Your task to perform on an android device: move an email to a new category in the gmail app Image 0: 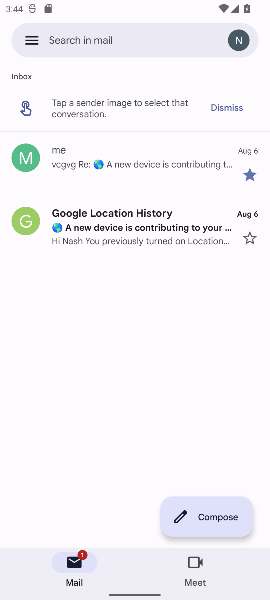
Step 0: press home button
Your task to perform on an android device: move an email to a new category in the gmail app Image 1: 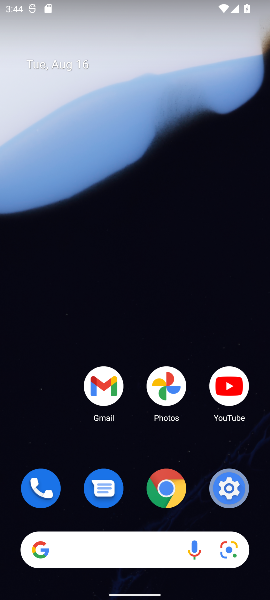
Step 1: click (102, 393)
Your task to perform on an android device: move an email to a new category in the gmail app Image 2: 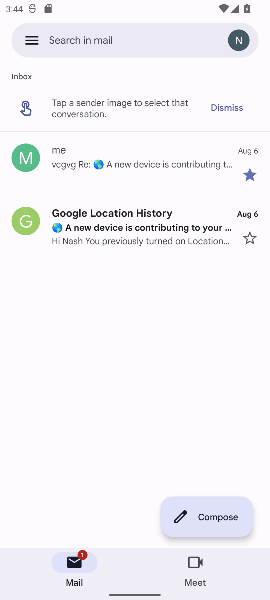
Step 2: task complete